Your task to perform on an android device: open a bookmark in the chrome app Image 0: 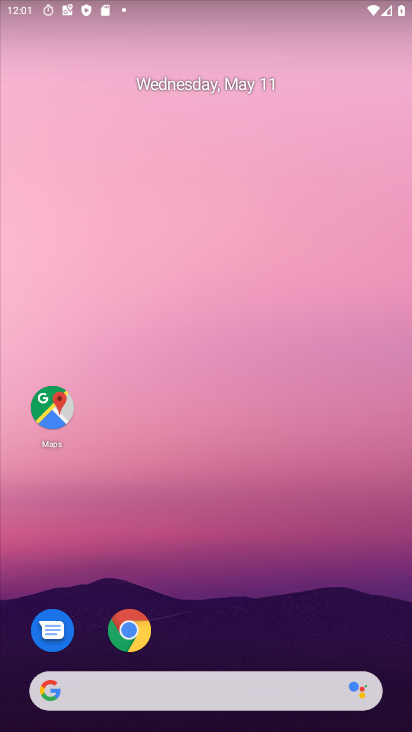
Step 0: drag from (278, 611) to (309, 56)
Your task to perform on an android device: open a bookmark in the chrome app Image 1: 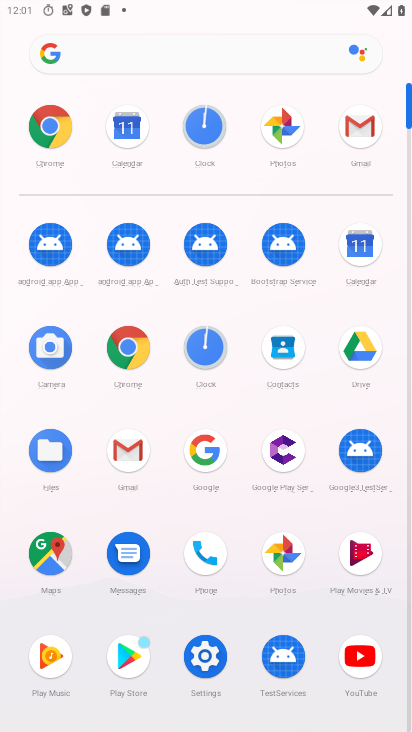
Step 1: click (52, 135)
Your task to perform on an android device: open a bookmark in the chrome app Image 2: 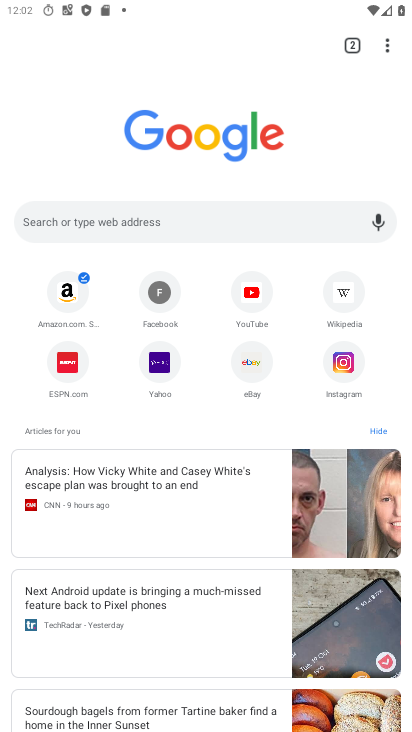
Step 2: task complete